Your task to perform on an android device: choose inbox layout in the gmail app Image 0: 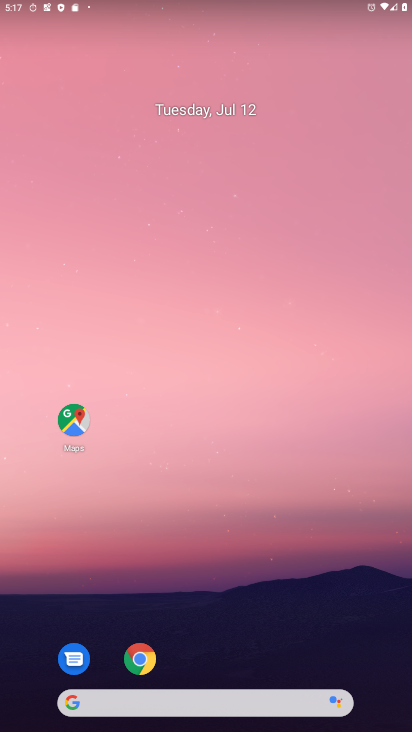
Step 0: drag from (192, 312) to (208, 102)
Your task to perform on an android device: choose inbox layout in the gmail app Image 1: 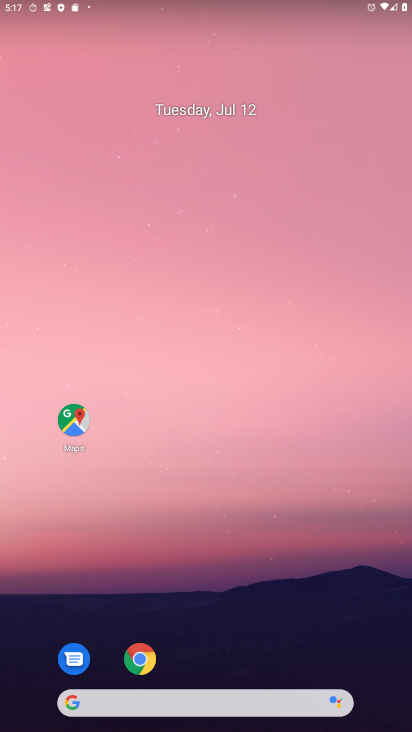
Step 1: drag from (224, 322) to (254, 60)
Your task to perform on an android device: choose inbox layout in the gmail app Image 2: 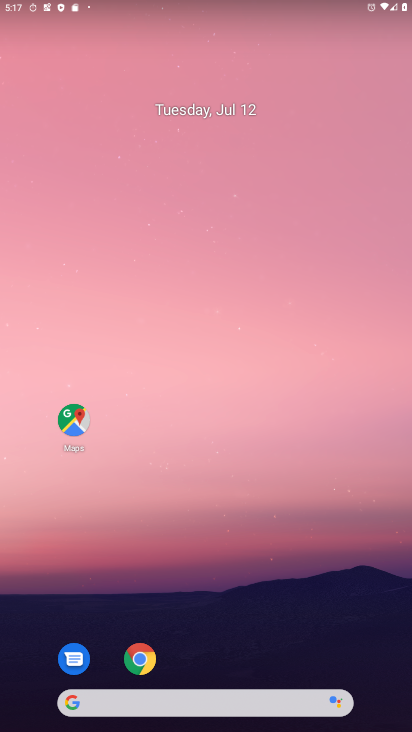
Step 2: drag from (223, 619) to (220, 41)
Your task to perform on an android device: choose inbox layout in the gmail app Image 3: 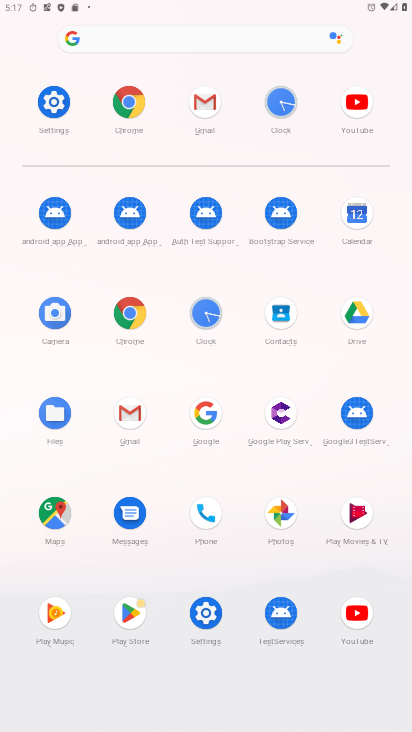
Step 3: click (200, 113)
Your task to perform on an android device: choose inbox layout in the gmail app Image 4: 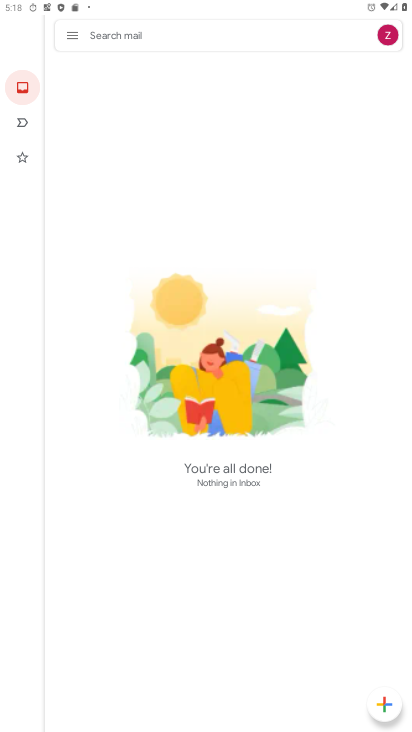
Step 4: click (67, 39)
Your task to perform on an android device: choose inbox layout in the gmail app Image 5: 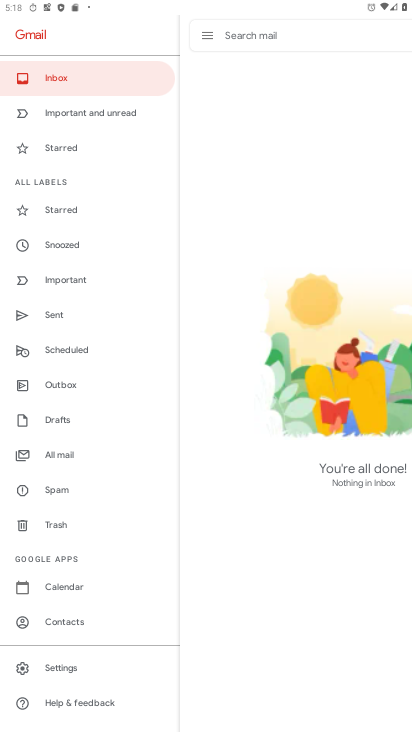
Step 5: click (69, 666)
Your task to perform on an android device: choose inbox layout in the gmail app Image 6: 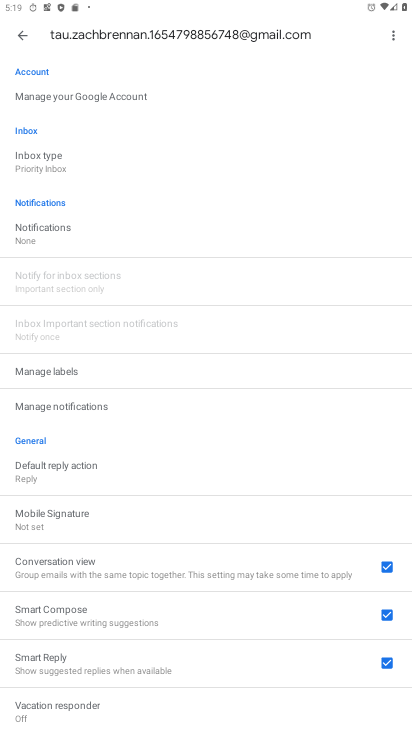
Step 6: click (40, 177)
Your task to perform on an android device: choose inbox layout in the gmail app Image 7: 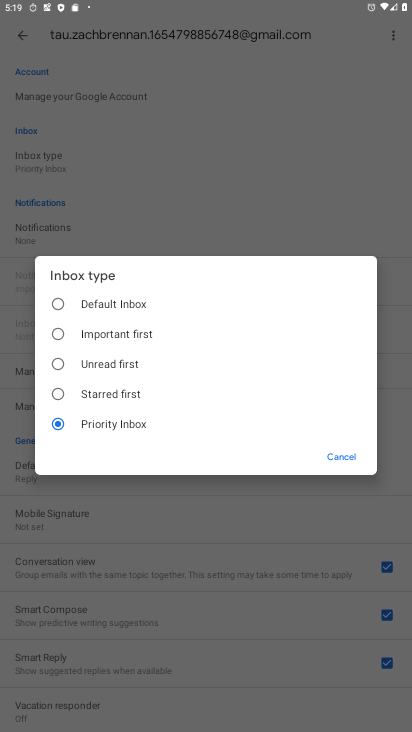
Step 7: click (58, 303)
Your task to perform on an android device: choose inbox layout in the gmail app Image 8: 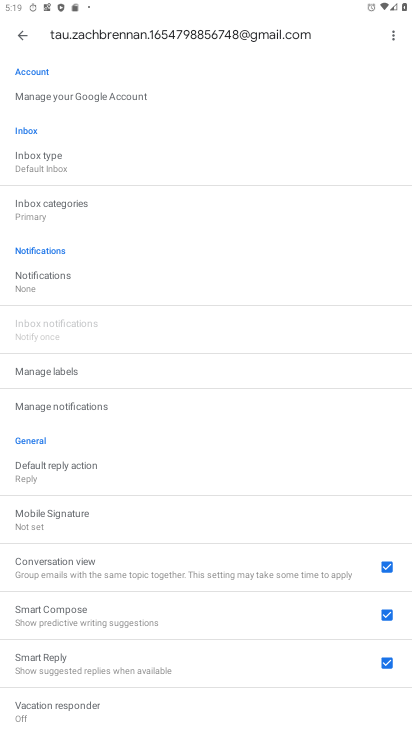
Step 8: task complete